Your task to perform on an android device: turn on javascript in the chrome app Image 0: 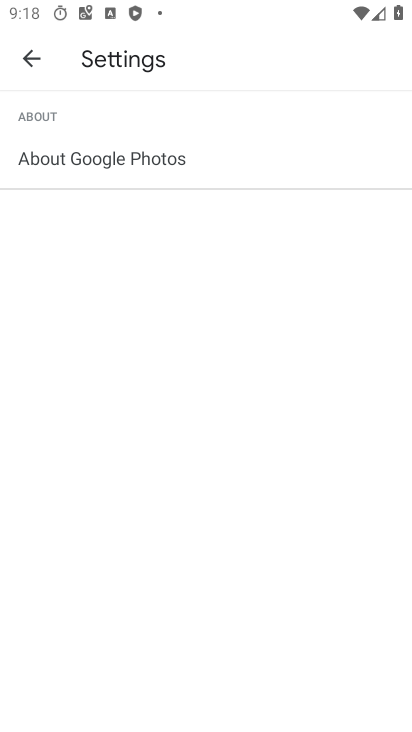
Step 0: press home button
Your task to perform on an android device: turn on javascript in the chrome app Image 1: 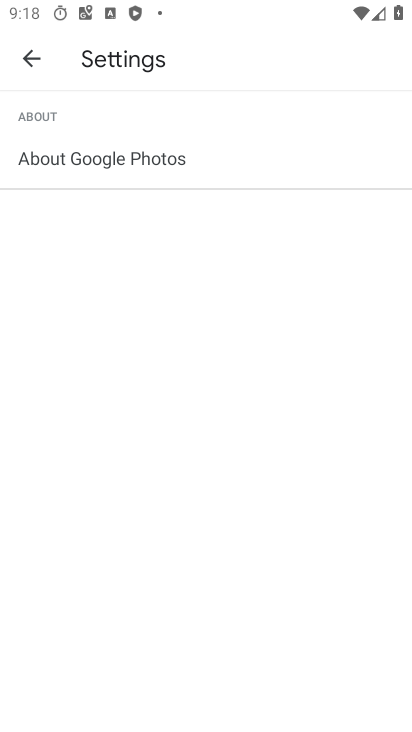
Step 1: press home button
Your task to perform on an android device: turn on javascript in the chrome app Image 2: 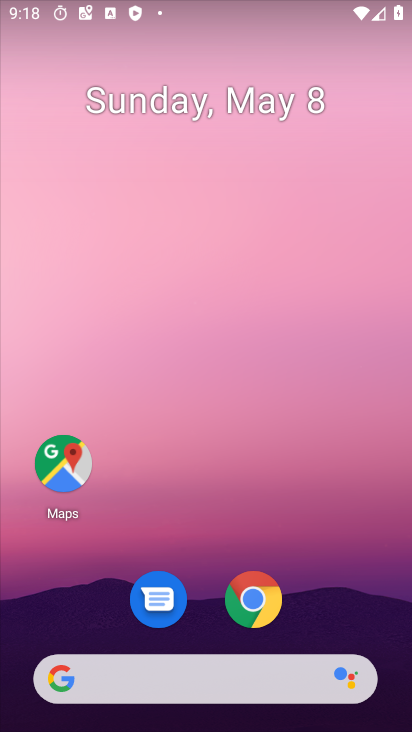
Step 2: drag from (211, 634) to (148, 95)
Your task to perform on an android device: turn on javascript in the chrome app Image 3: 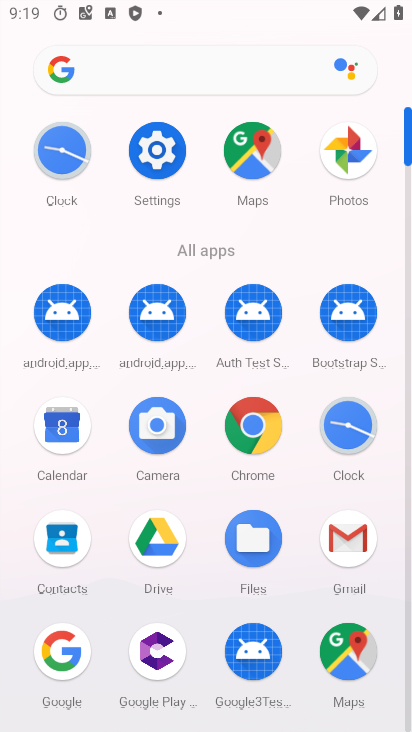
Step 3: click (251, 440)
Your task to perform on an android device: turn on javascript in the chrome app Image 4: 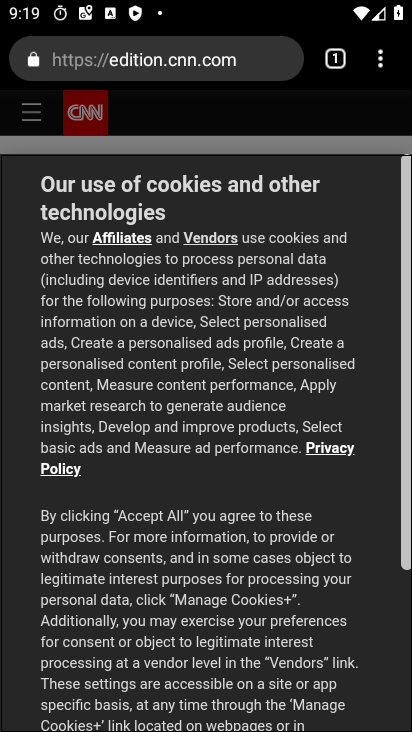
Step 4: click (378, 69)
Your task to perform on an android device: turn on javascript in the chrome app Image 5: 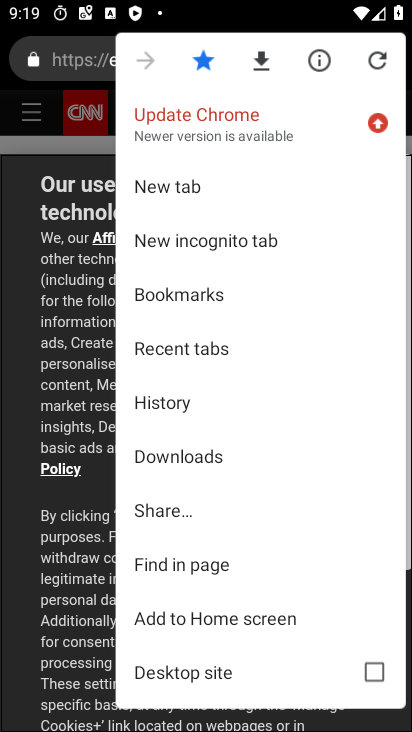
Step 5: drag from (191, 598) to (239, 221)
Your task to perform on an android device: turn on javascript in the chrome app Image 6: 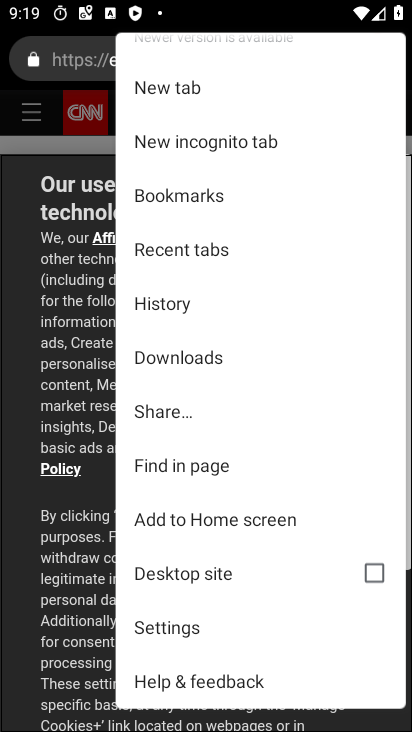
Step 6: click (200, 633)
Your task to perform on an android device: turn on javascript in the chrome app Image 7: 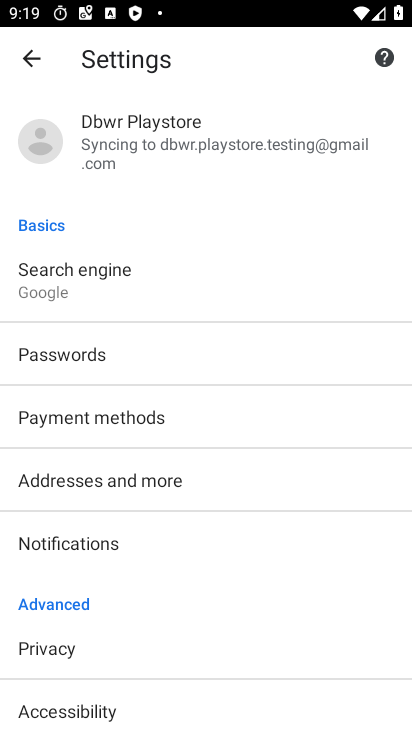
Step 7: drag from (198, 632) to (232, 387)
Your task to perform on an android device: turn on javascript in the chrome app Image 8: 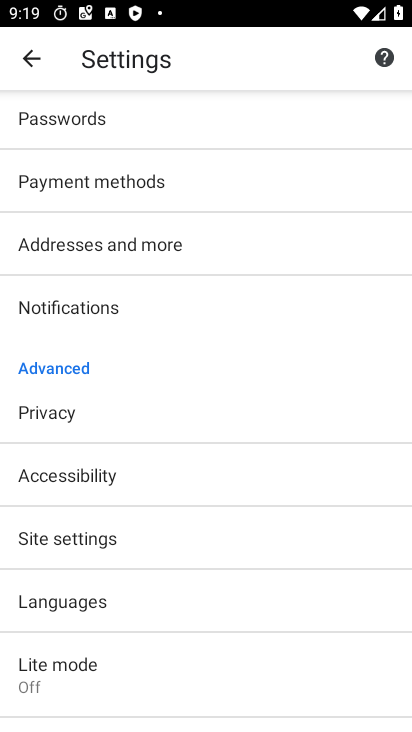
Step 8: click (139, 536)
Your task to perform on an android device: turn on javascript in the chrome app Image 9: 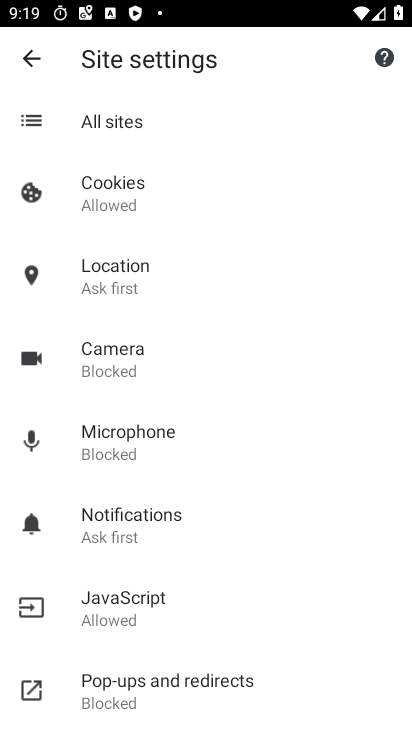
Step 9: drag from (157, 555) to (158, 357)
Your task to perform on an android device: turn on javascript in the chrome app Image 10: 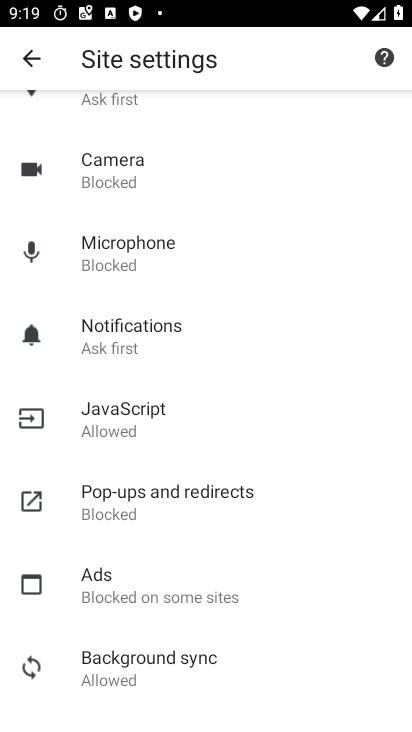
Step 10: click (148, 424)
Your task to perform on an android device: turn on javascript in the chrome app Image 11: 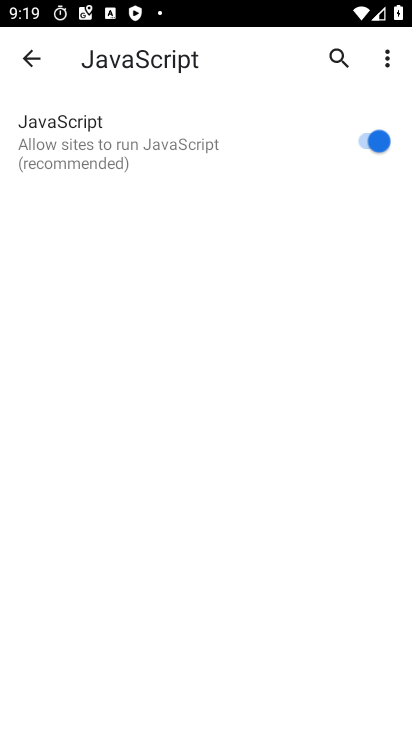
Step 11: task complete